Your task to perform on an android device: Go to Android settings Image 0: 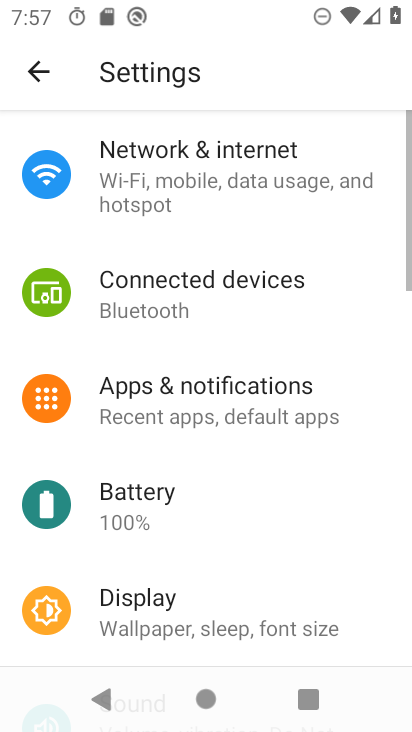
Step 0: press home button
Your task to perform on an android device: Go to Android settings Image 1: 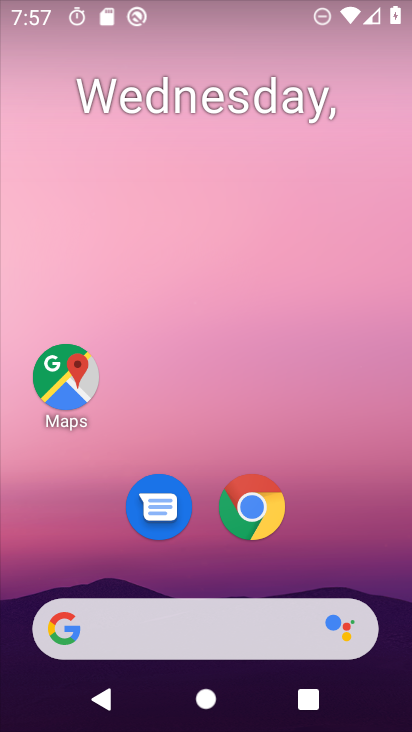
Step 1: drag from (271, 638) to (273, 100)
Your task to perform on an android device: Go to Android settings Image 2: 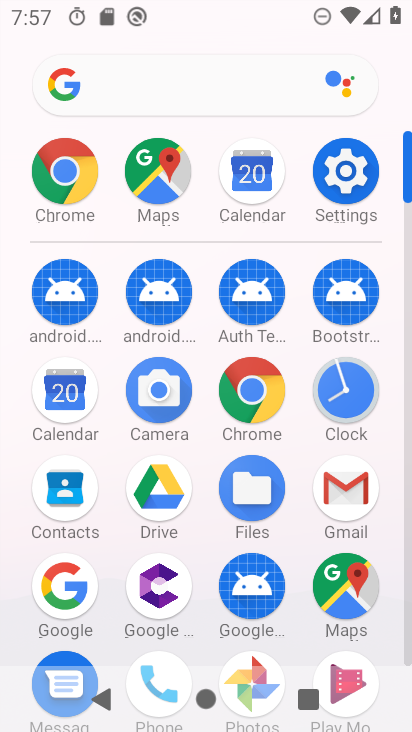
Step 2: click (333, 210)
Your task to perform on an android device: Go to Android settings Image 3: 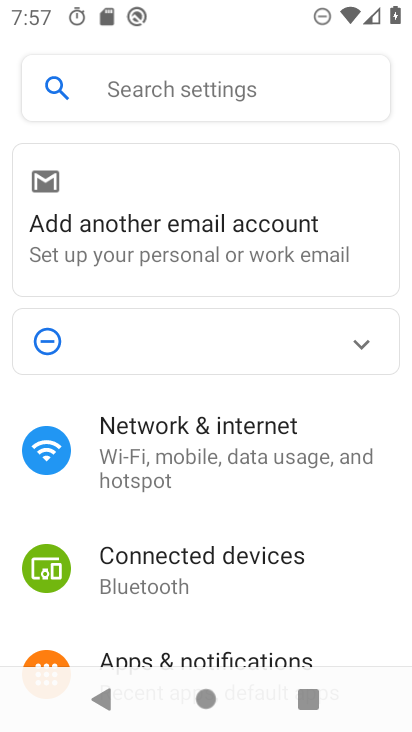
Step 3: click (164, 98)
Your task to perform on an android device: Go to Android settings Image 4: 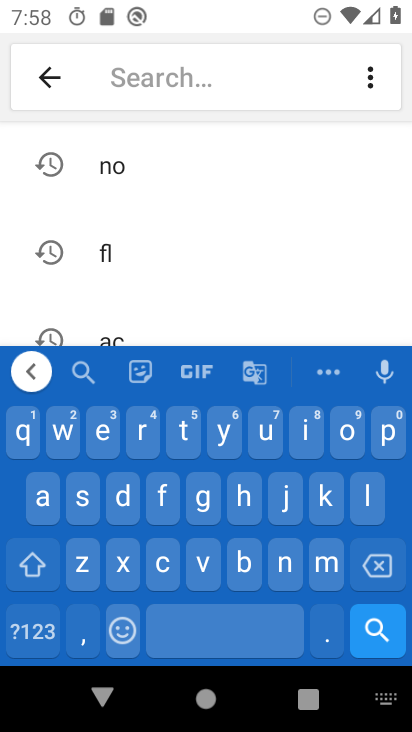
Step 4: click (44, 511)
Your task to perform on an android device: Go to Android settings Image 5: 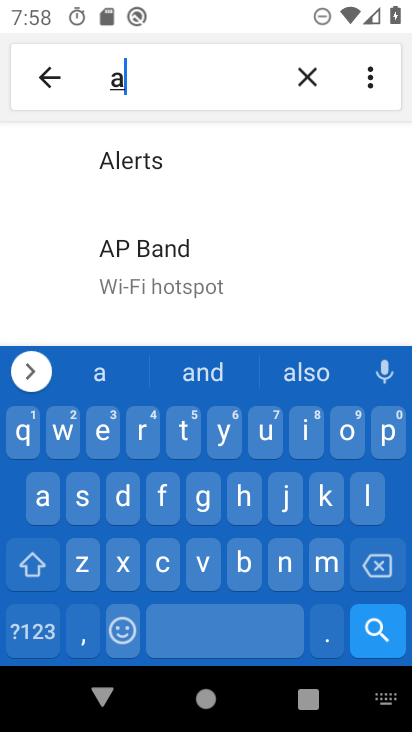
Step 5: click (280, 571)
Your task to perform on an android device: Go to Android settings Image 6: 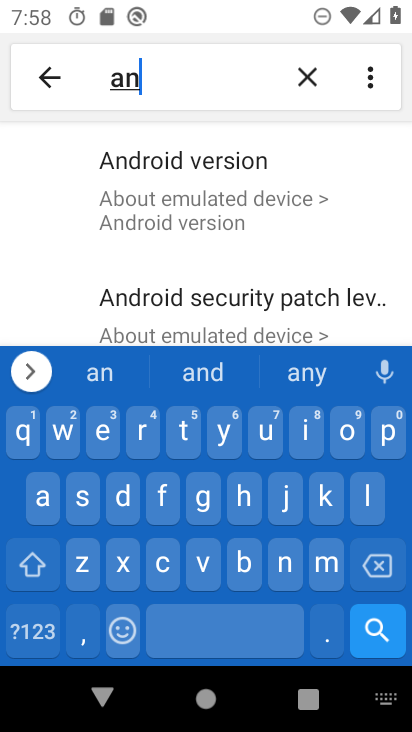
Step 6: click (192, 226)
Your task to perform on an android device: Go to Android settings Image 7: 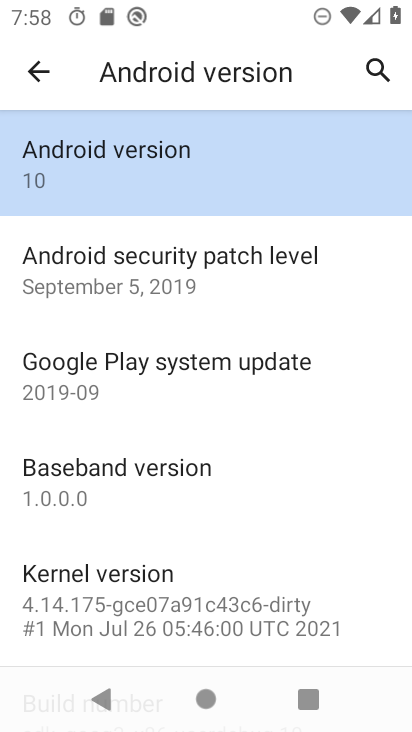
Step 7: click (160, 178)
Your task to perform on an android device: Go to Android settings Image 8: 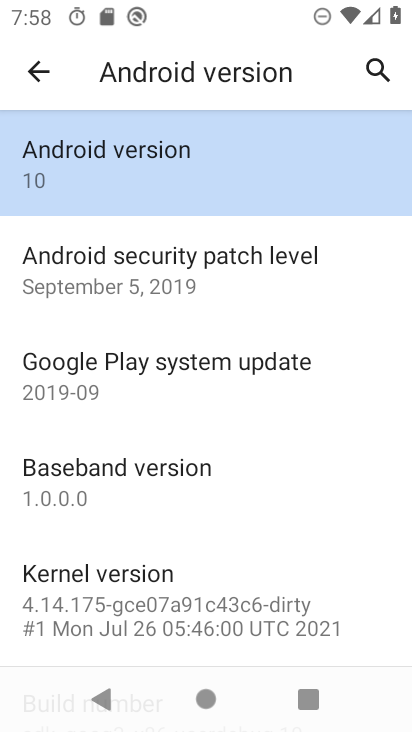
Step 8: task complete